Your task to perform on an android device: Open the calendar app, open the side menu, and click the "Day" option Image 0: 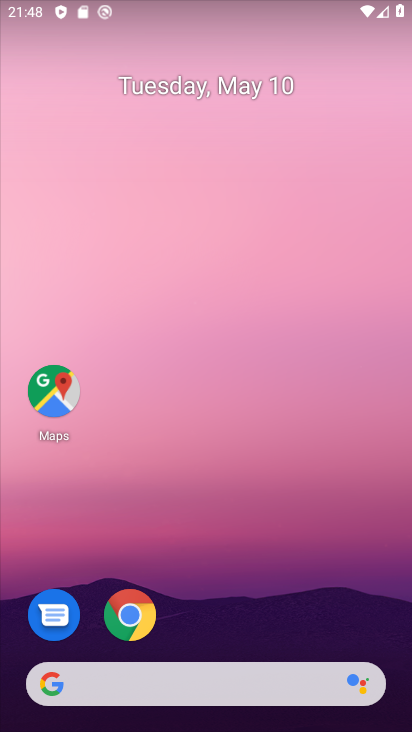
Step 0: drag from (195, 607) to (318, 115)
Your task to perform on an android device: Open the calendar app, open the side menu, and click the "Day" option Image 1: 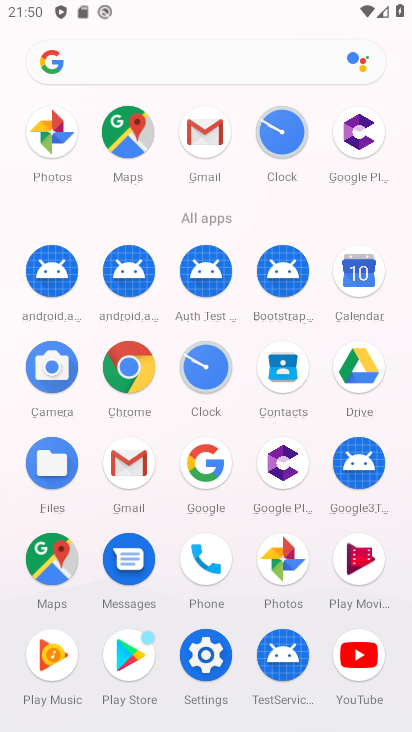
Step 1: click (350, 291)
Your task to perform on an android device: Open the calendar app, open the side menu, and click the "Day" option Image 2: 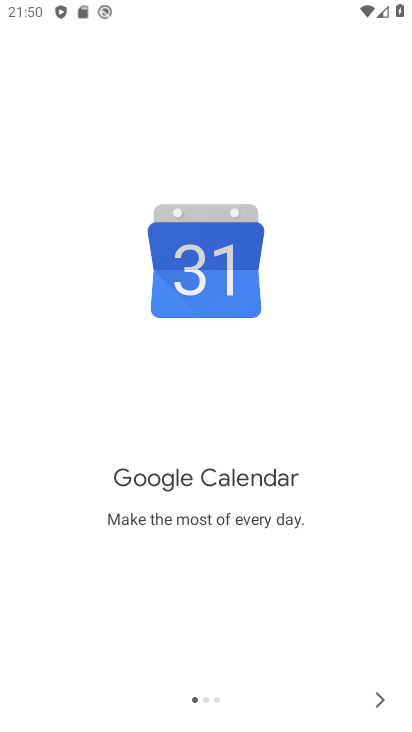
Step 2: click (392, 700)
Your task to perform on an android device: Open the calendar app, open the side menu, and click the "Day" option Image 3: 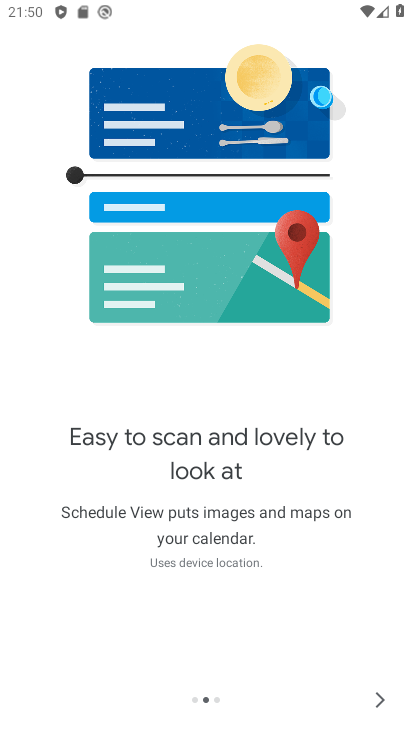
Step 3: click (377, 694)
Your task to perform on an android device: Open the calendar app, open the side menu, and click the "Day" option Image 4: 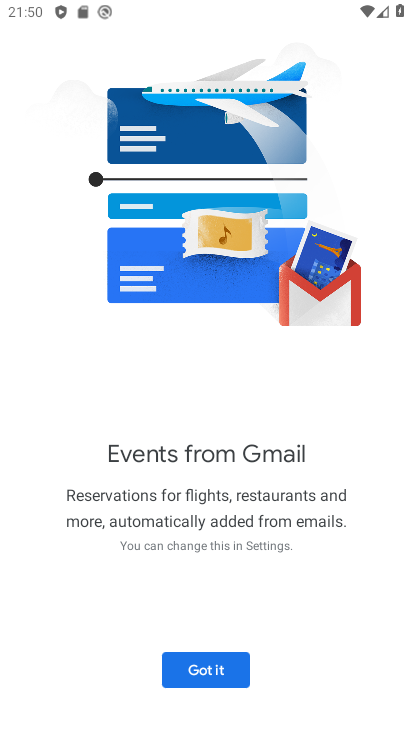
Step 4: click (238, 673)
Your task to perform on an android device: Open the calendar app, open the side menu, and click the "Day" option Image 5: 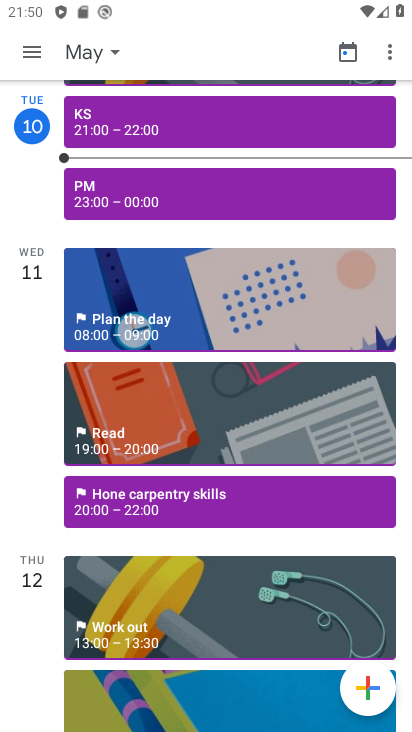
Step 5: click (25, 53)
Your task to perform on an android device: Open the calendar app, open the side menu, and click the "Day" option Image 6: 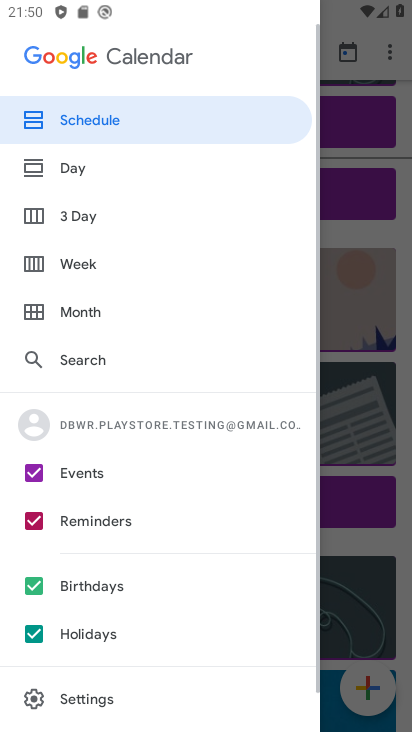
Step 6: click (78, 174)
Your task to perform on an android device: Open the calendar app, open the side menu, and click the "Day" option Image 7: 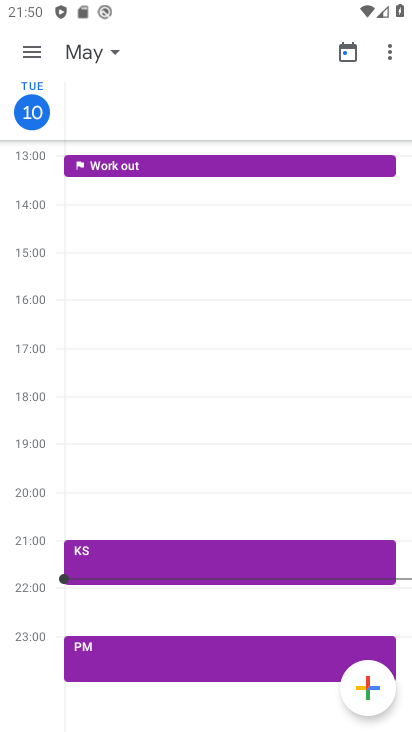
Step 7: task complete